Your task to perform on an android device: uninstall "File Manager" Image 0: 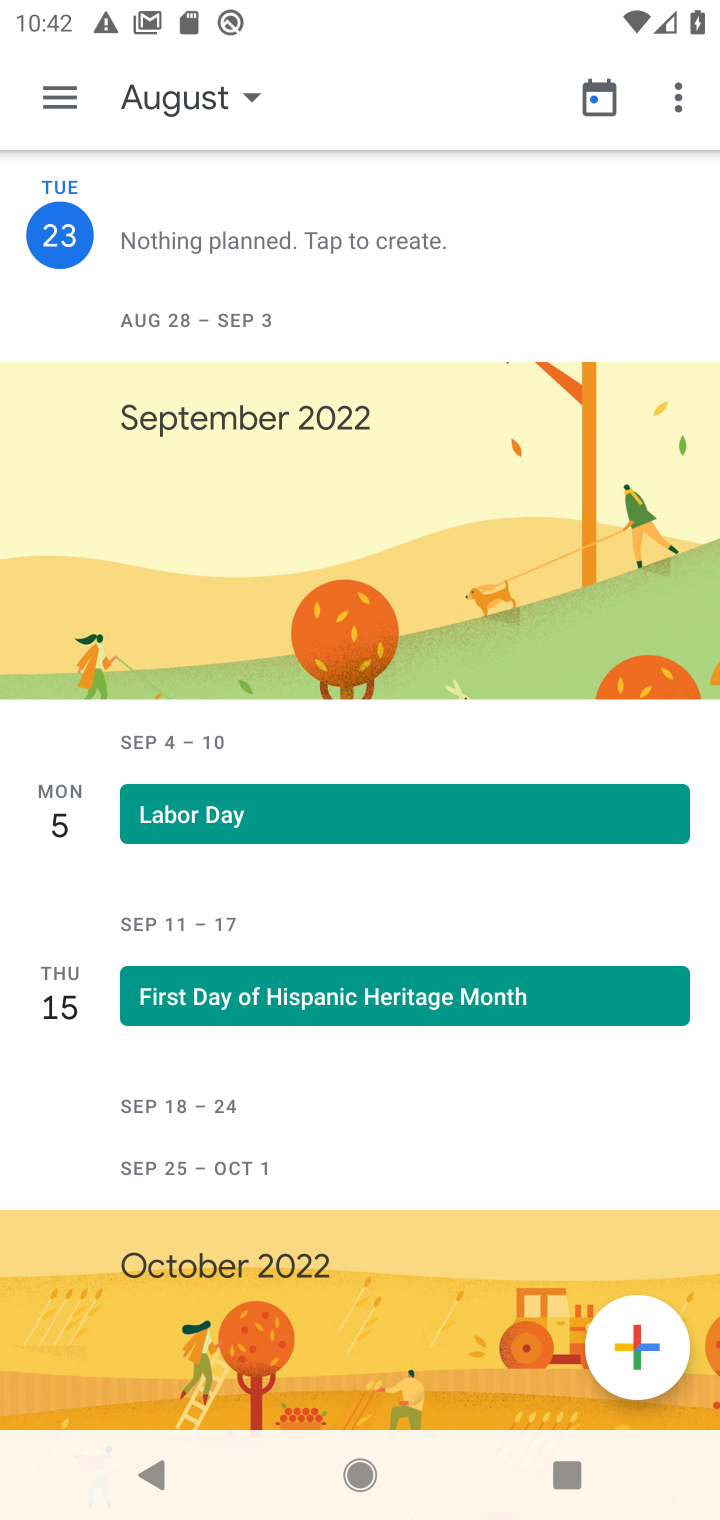
Step 0: press home button
Your task to perform on an android device: uninstall "File Manager" Image 1: 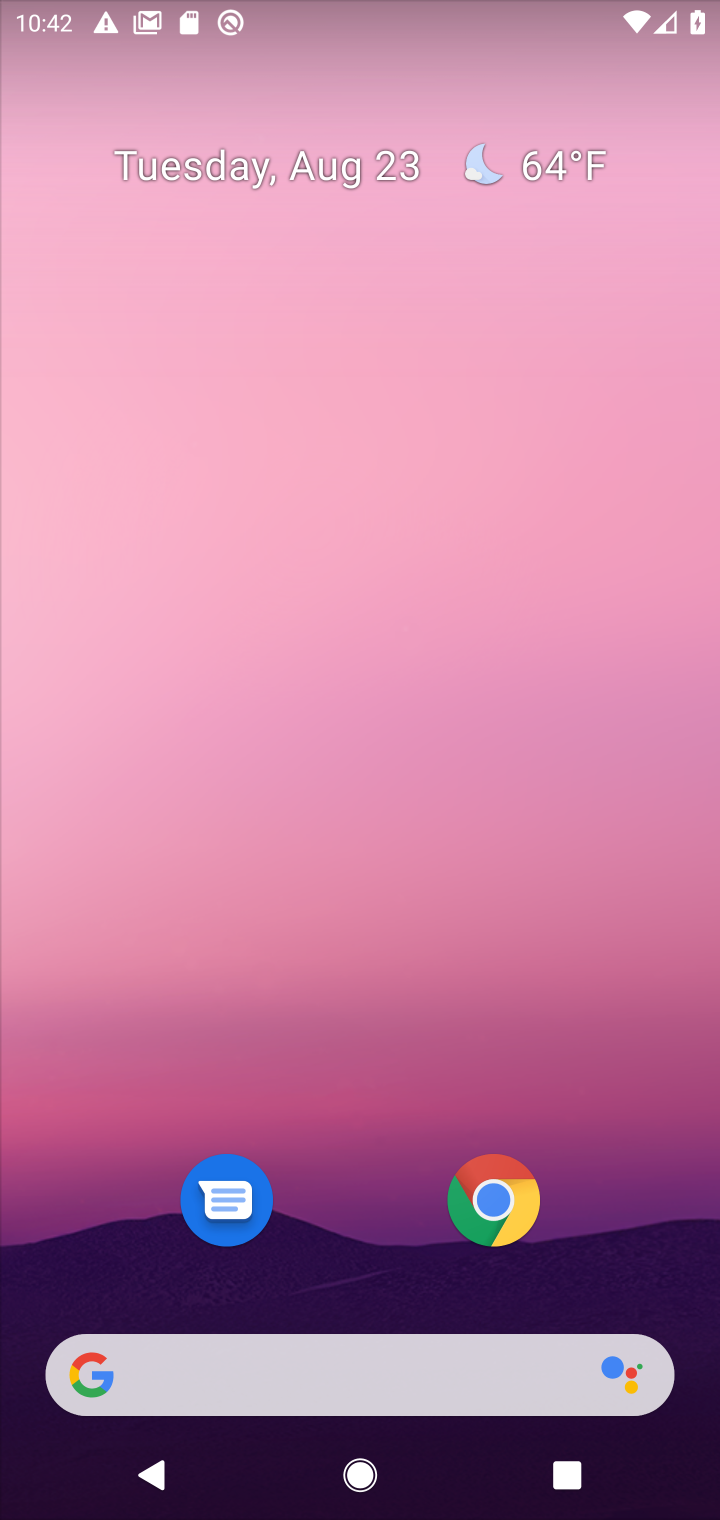
Step 1: drag from (320, 1311) to (632, 249)
Your task to perform on an android device: uninstall "File Manager" Image 2: 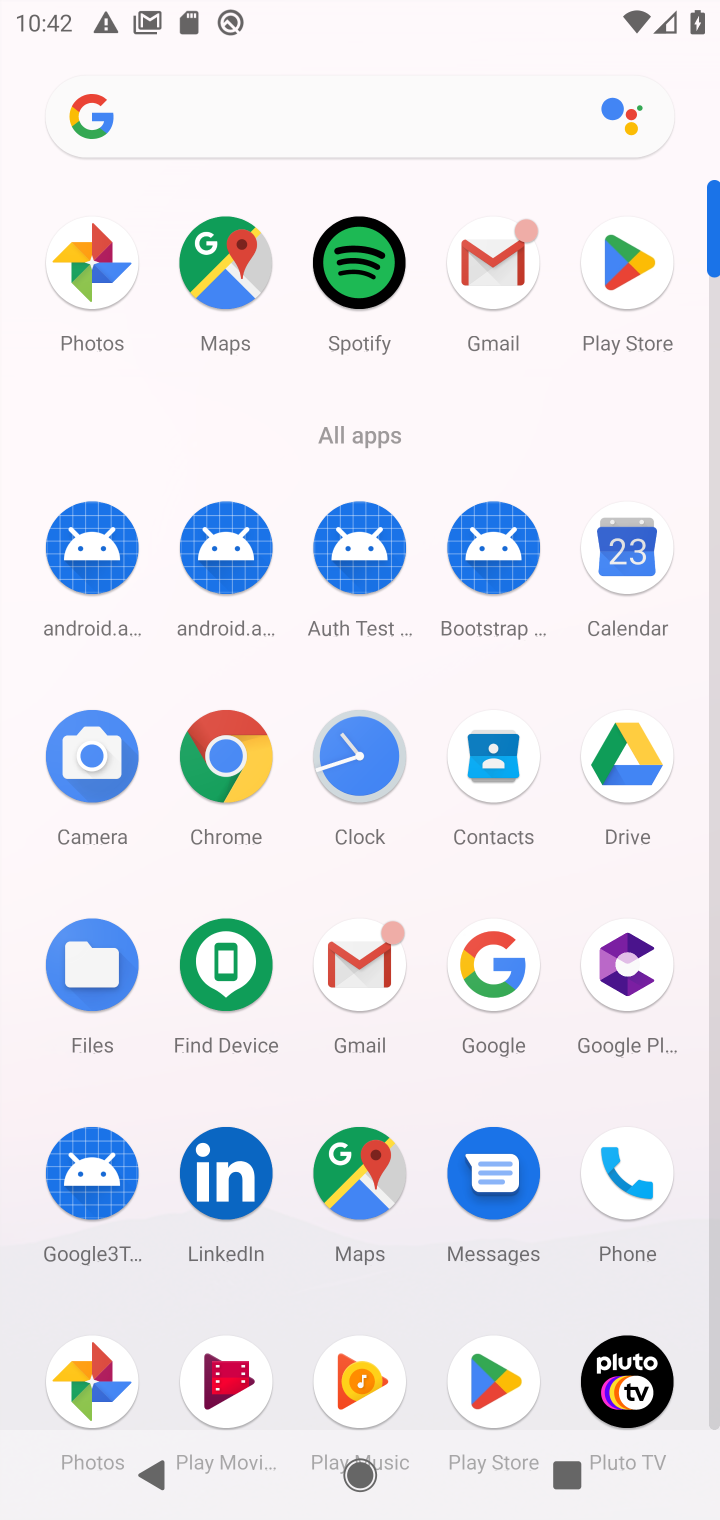
Step 2: click (618, 317)
Your task to perform on an android device: uninstall "File Manager" Image 3: 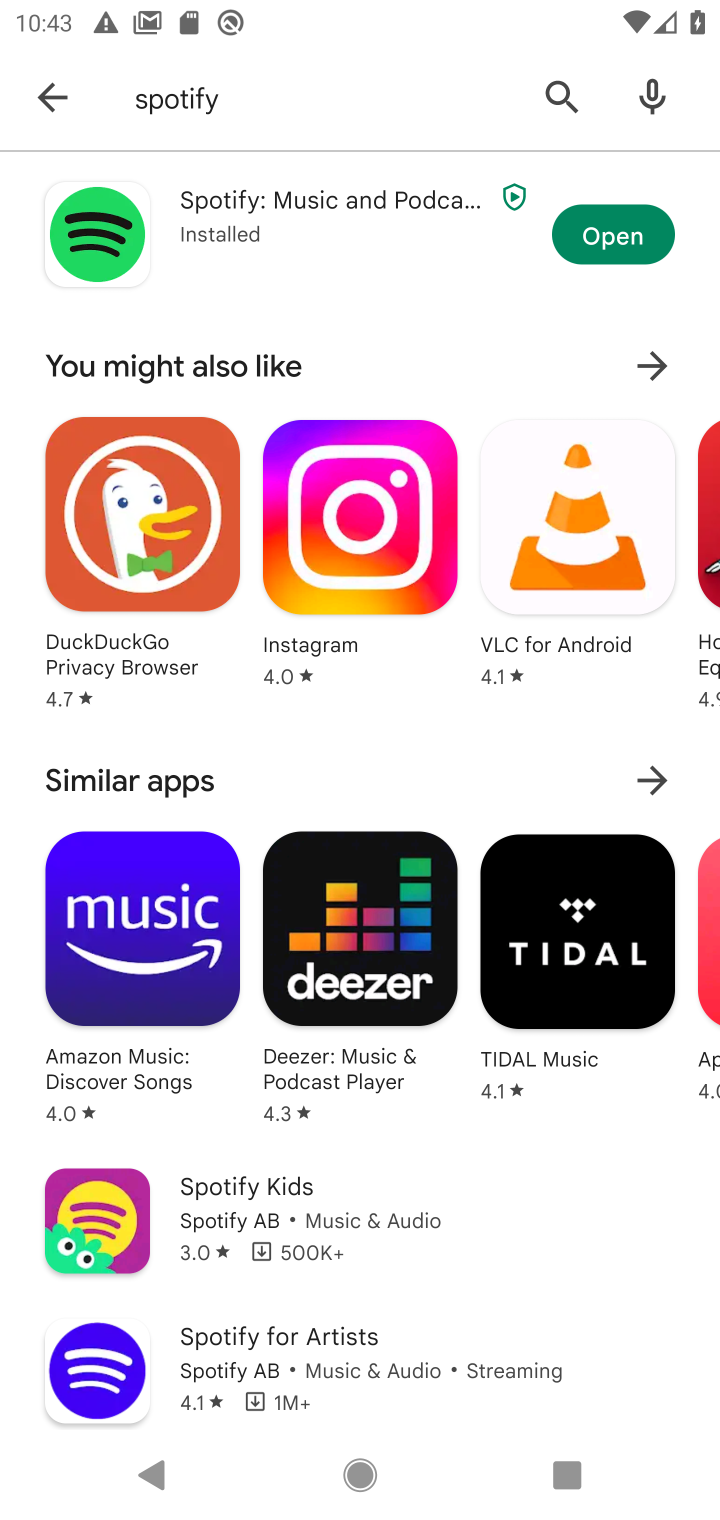
Step 3: click (45, 96)
Your task to perform on an android device: uninstall "File Manager" Image 4: 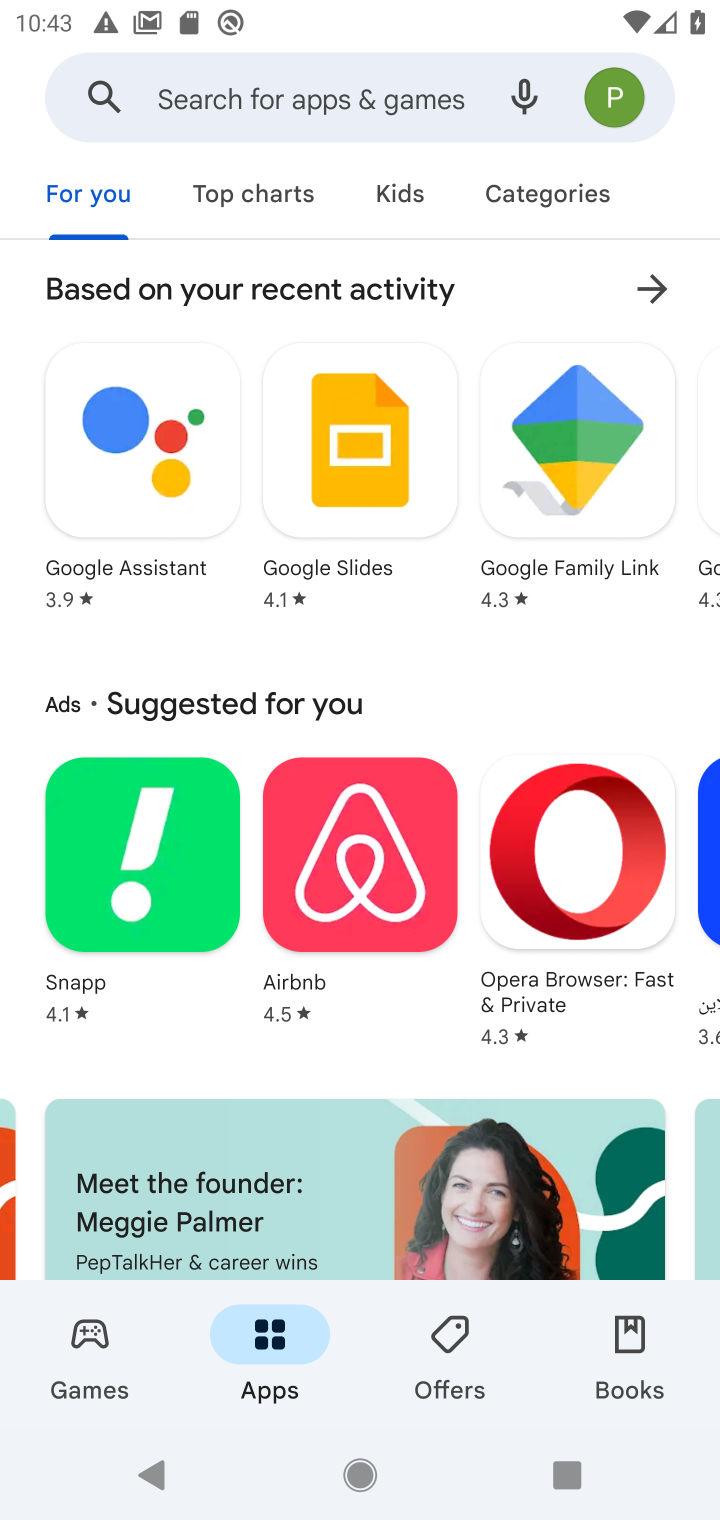
Step 4: click (160, 92)
Your task to perform on an android device: uninstall "File Manager" Image 5: 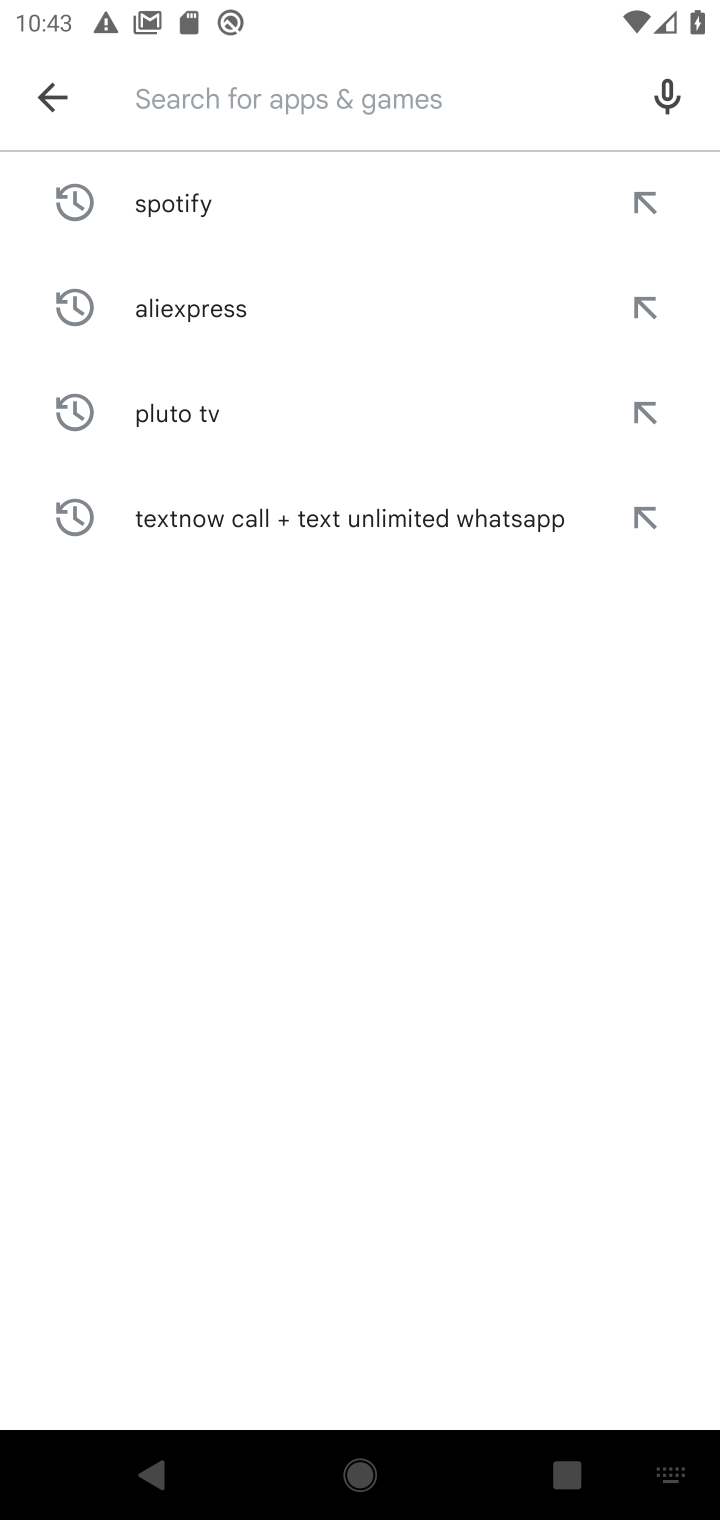
Step 5: type "File Manager"
Your task to perform on an android device: uninstall "File Manager" Image 6: 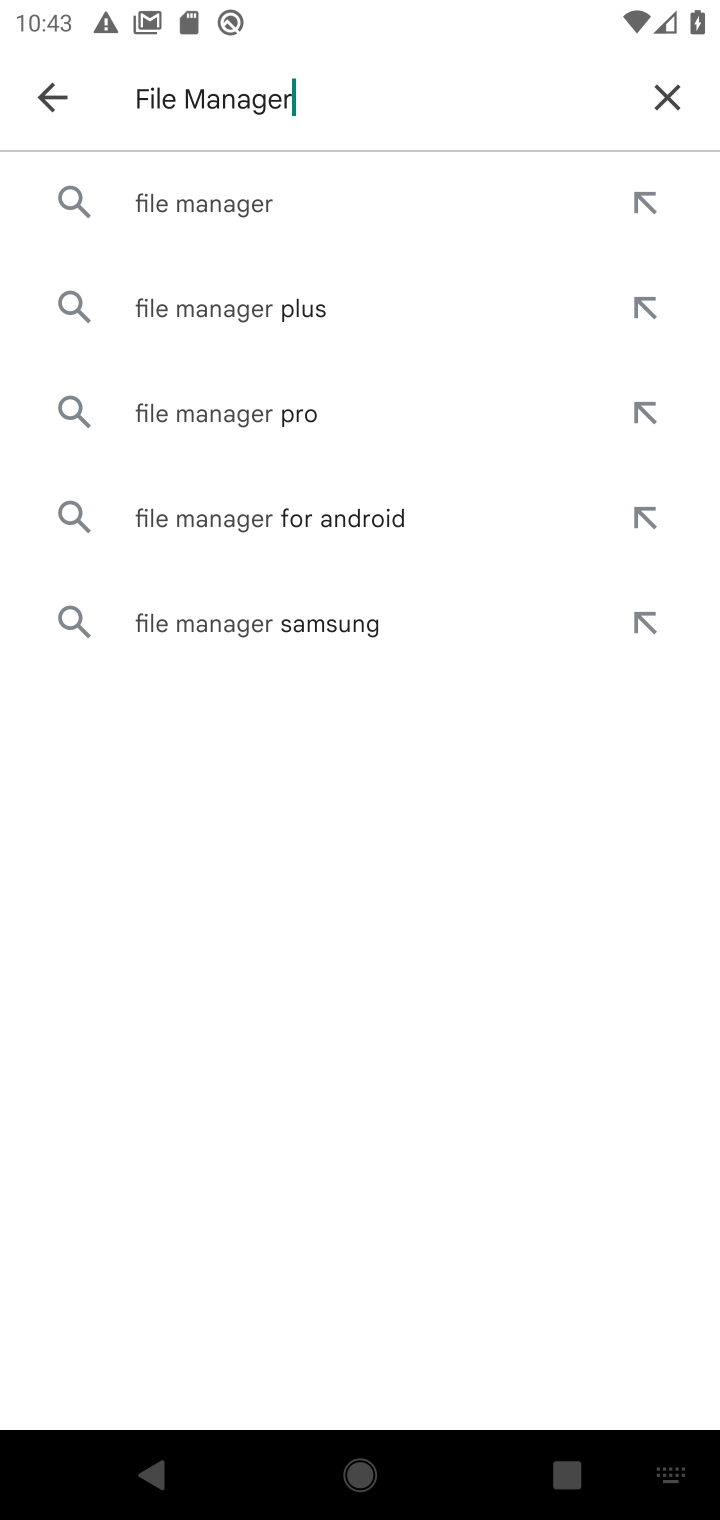
Step 6: click (246, 198)
Your task to perform on an android device: uninstall "File Manager" Image 7: 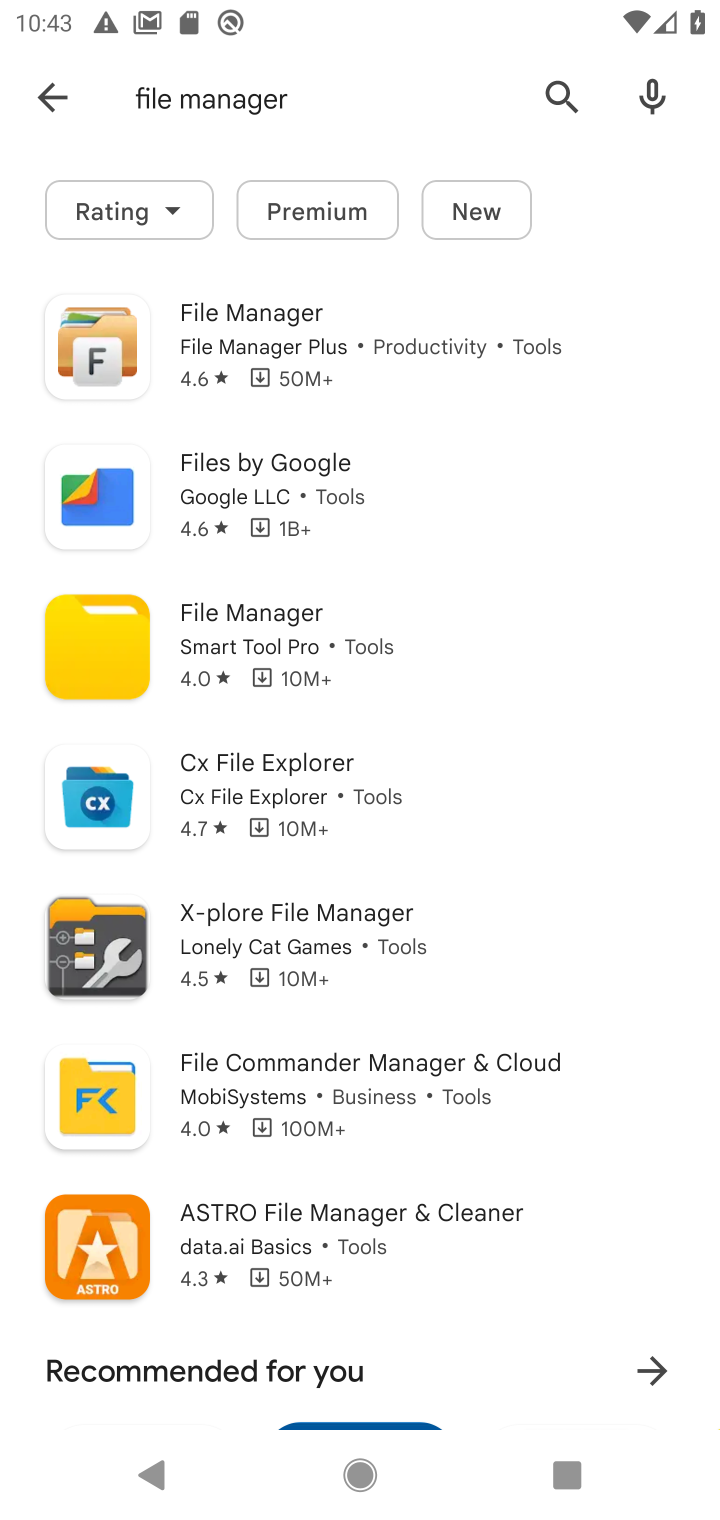
Step 7: click (284, 297)
Your task to perform on an android device: uninstall "File Manager" Image 8: 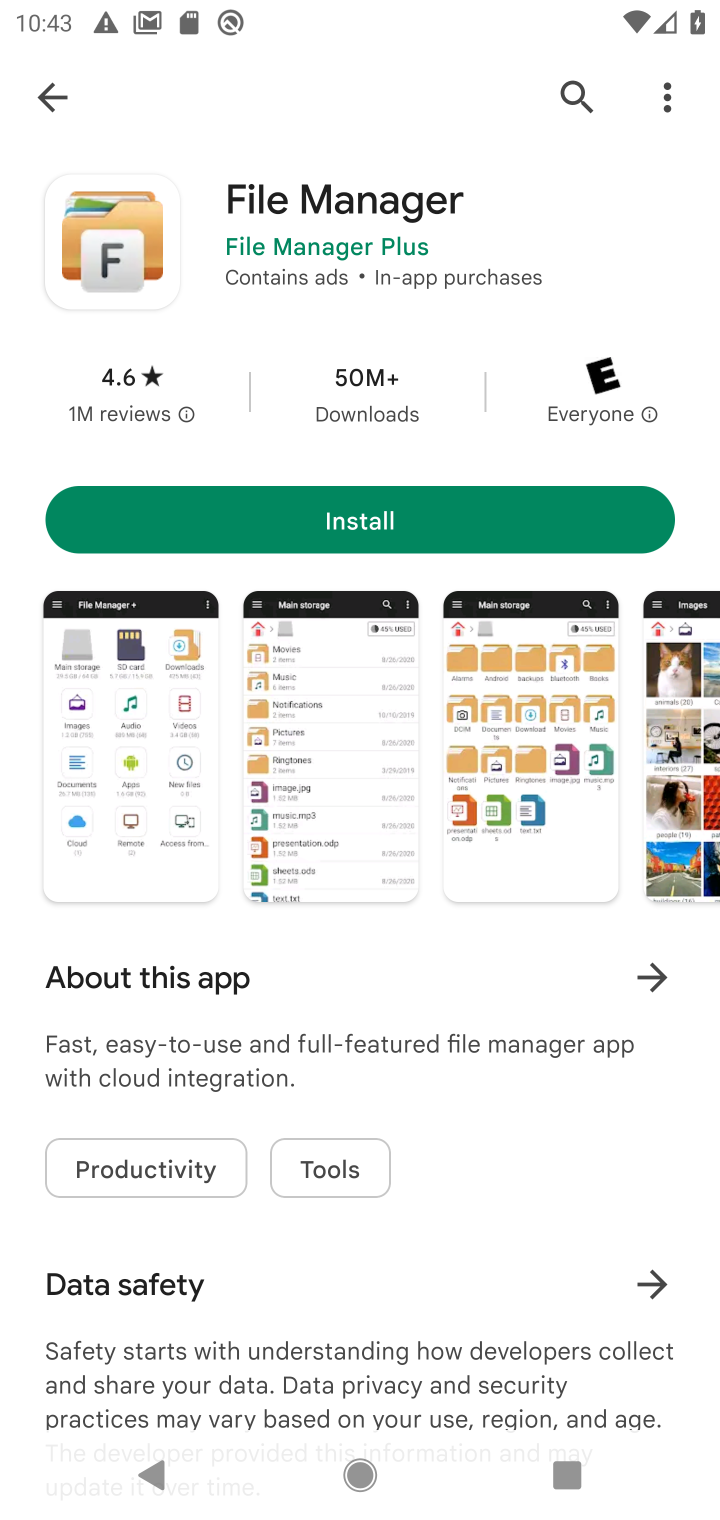
Step 8: task complete